Your task to perform on an android device: Open Amazon Image 0: 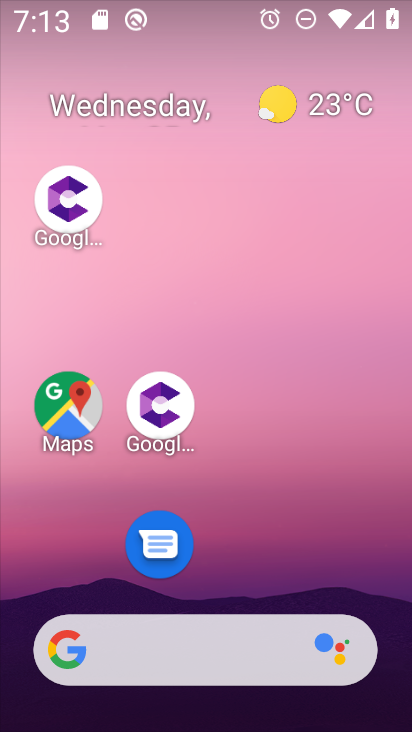
Step 0: drag from (305, 494) to (221, 67)
Your task to perform on an android device: Open Amazon Image 1: 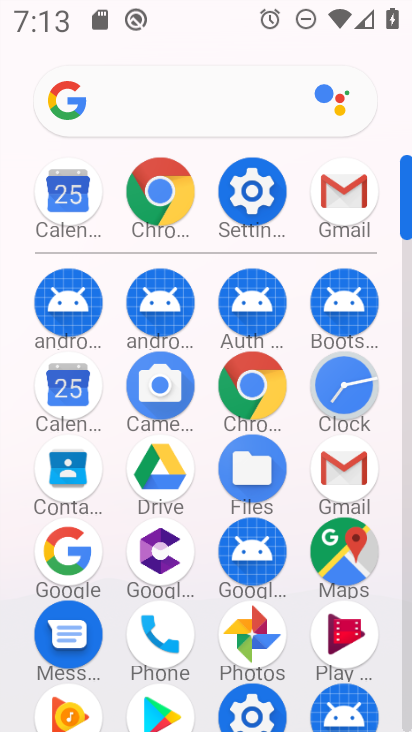
Step 1: click (153, 195)
Your task to perform on an android device: Open Amazon Image 2: 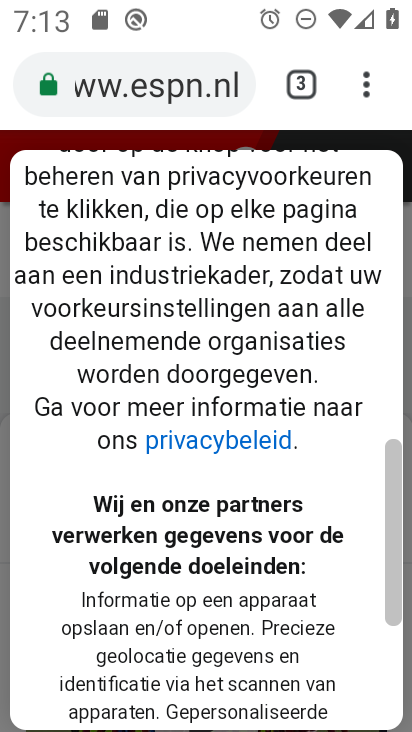
Step 2: click (362, 77)
Your task to perform on an android device: Open Amazon Image 3: 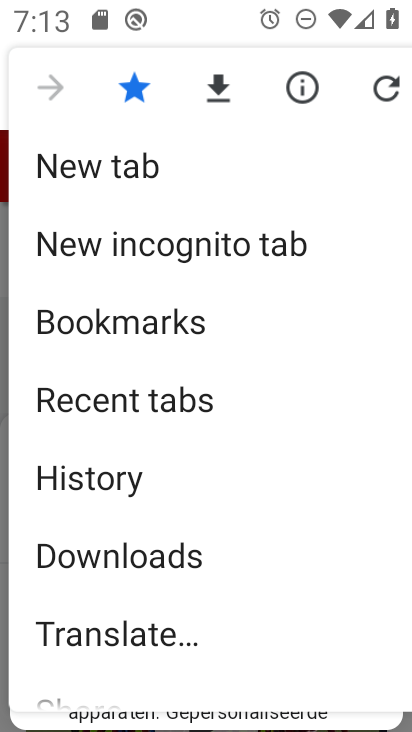
Step 3: click (118, 159)
Your task to perform on an android device: Open Amazon Image 4: 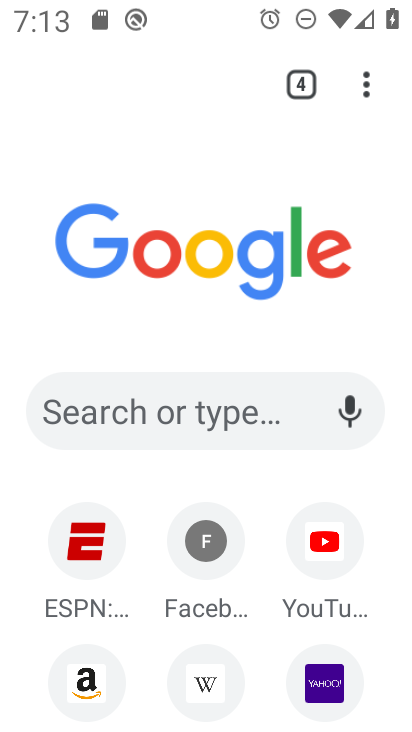
Step 4: click (93, 673)
Your task to perform on an android device: Open Amazon Image 5: 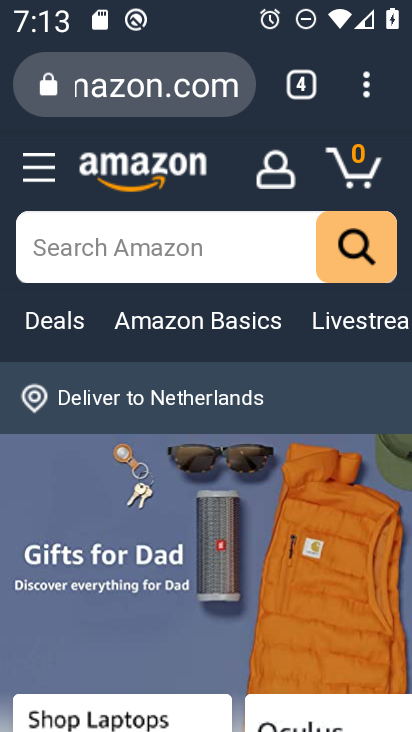
Step 5: task complete